Your task to perform on an android device: all mails in gmail Image 0: 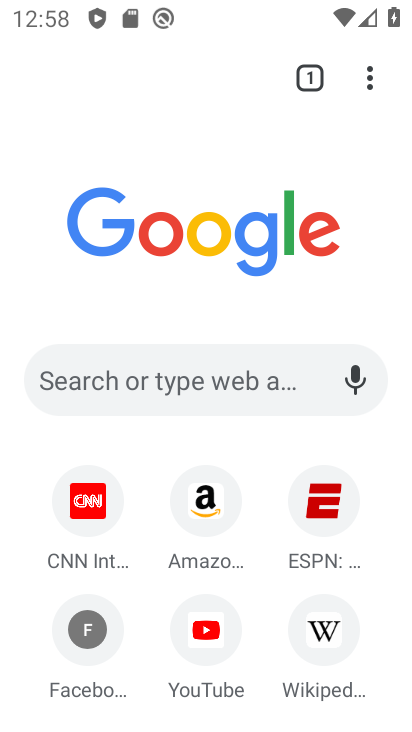
Step 0: press home button
Your task to perform on an android device: all mails in gmail Image 1: 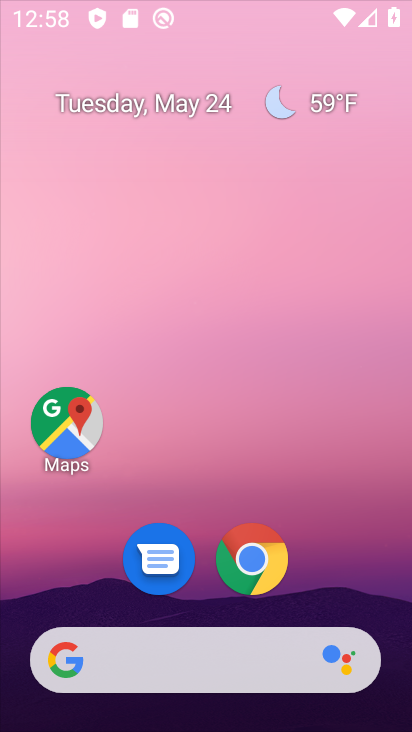
Step 1: drag from (402, 664) to (267, 80)
Your task to perform on an android device: all mails in gmail Image 2: 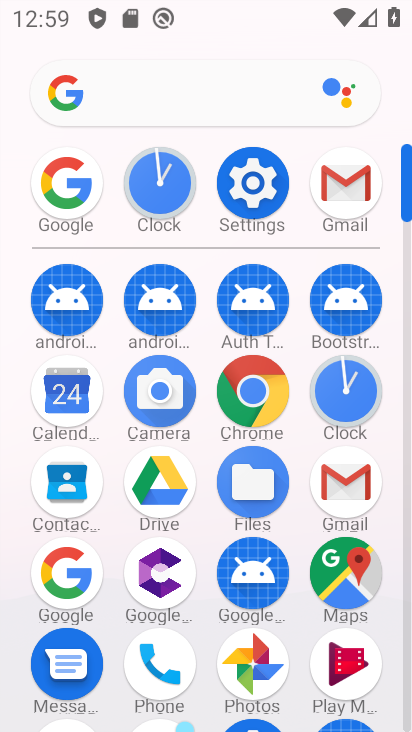
Step 2: click (342, 474)
Your task to perform on an android device: all mails in gmail Image 3: 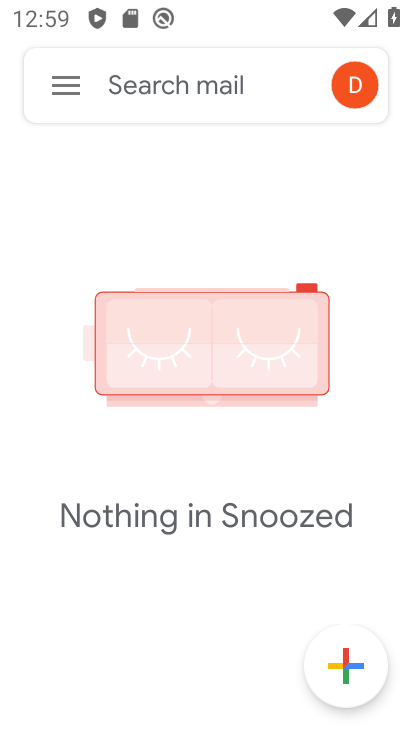
Step 3: click (61, 93)
Your task to perform on an android device: all mails in gmail Image 4: 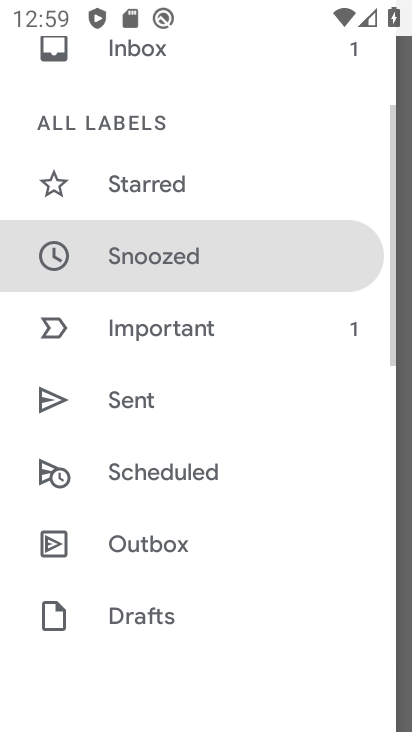
Step 4: drag from (176, 145) to (220, 610)
Your task to perform on an android device: all mails in gmail Image 5: 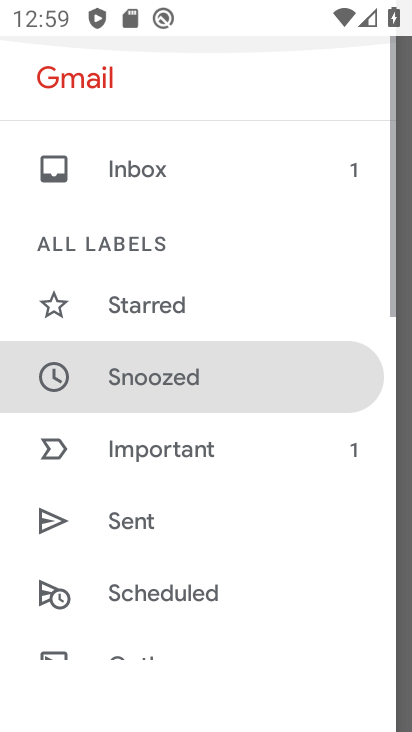
Step 5: drag from (186, 650) to (244, 89)
Your task to perform on an android device: all mails in gmail Image 6: 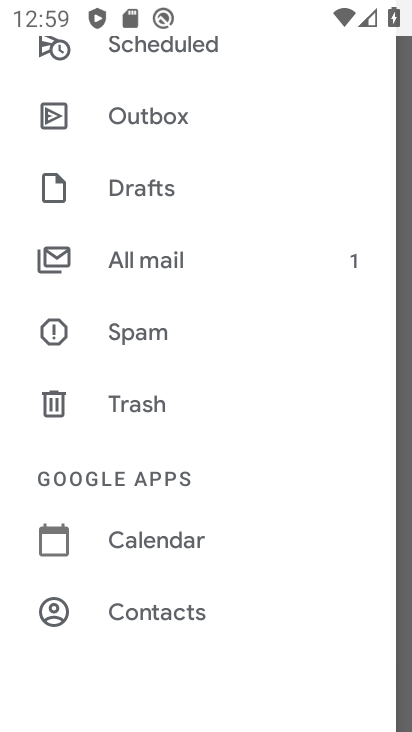
Step 6: click (181, 258)
Your task to perform on an android device: all mails in gmail Image 7: 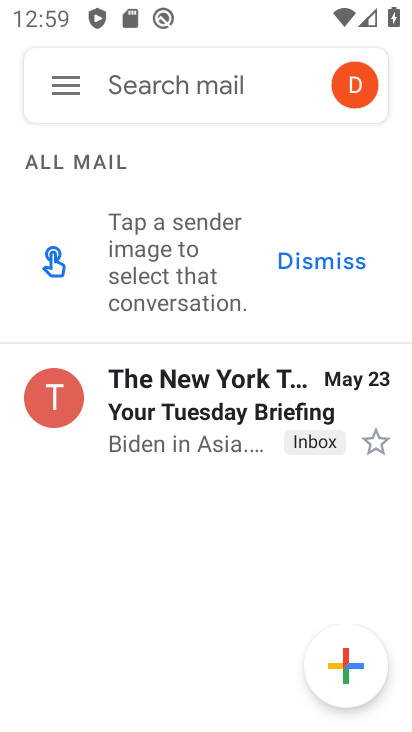
Step 7: task complete